Your task to perform on an android device: clear history in the chrome app Image 0: 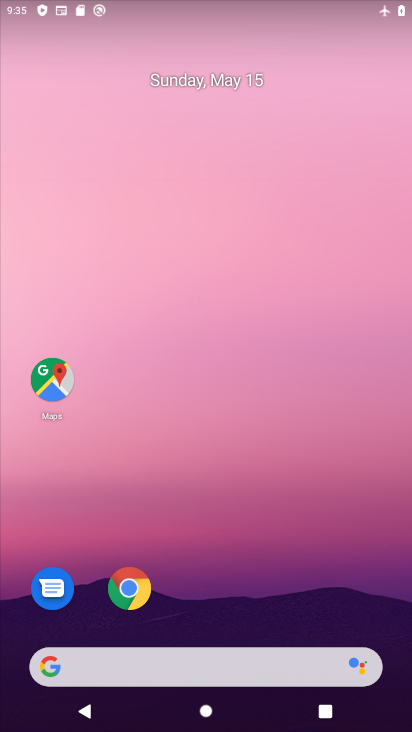
Step 0: click (130, 594)
Your task to perform on an android device: clear history in the chrome app Image 1: 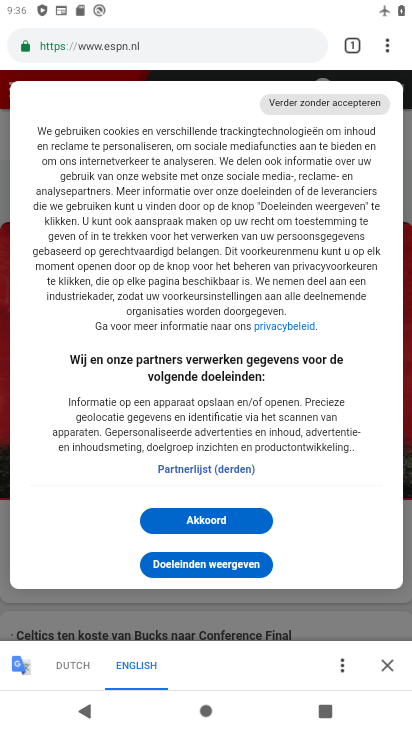
Step 1: click (384, 51)
Your task to perform on an android device: clear history in the chrome app Image 2: 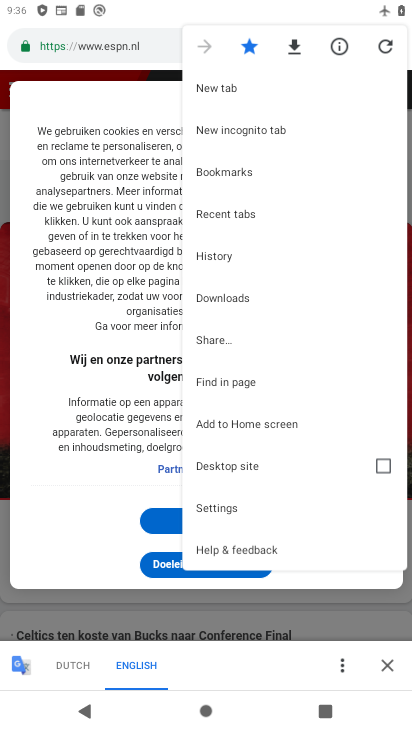
Step 2: click (384, 51)
Your task to perform on an android device: clear history in the chrome app Image 3: 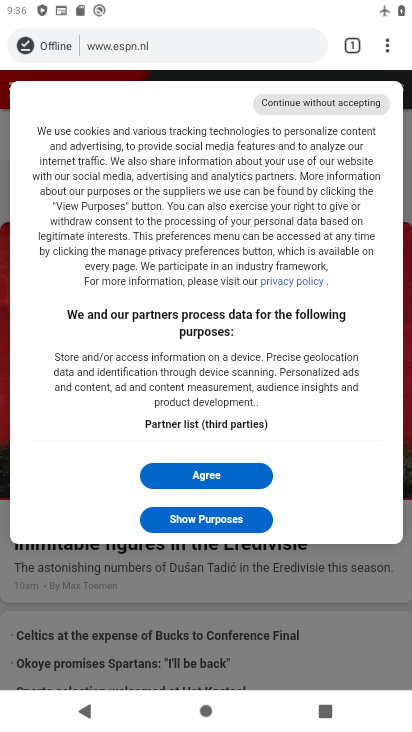
Step 3: click (380, 47)
Your task to perform on an android device: clear history in the chrome app Image 4: 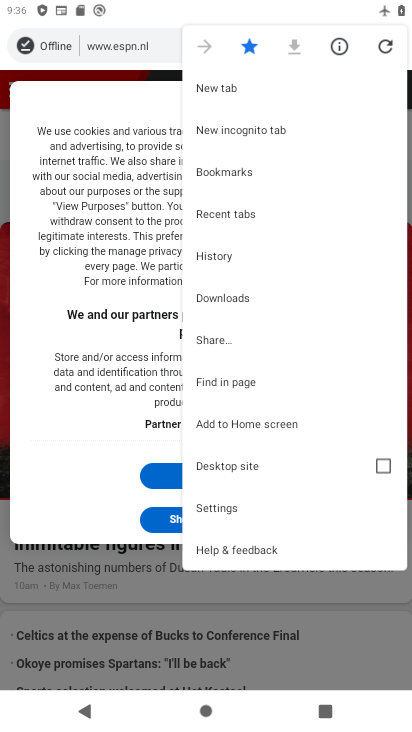
Step 4: click (229, 255)
Your task to perform on an android device: clear history in the chrome app Image 5: 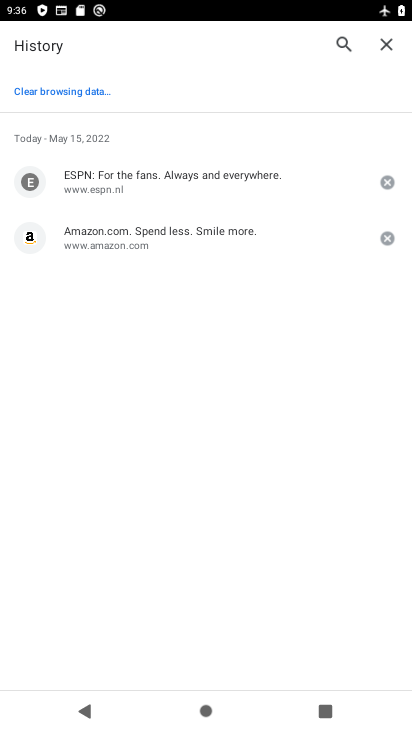
Step 5: click (65, 91)
Your task to perform on an android device: clear history in the chrome app Image 6: 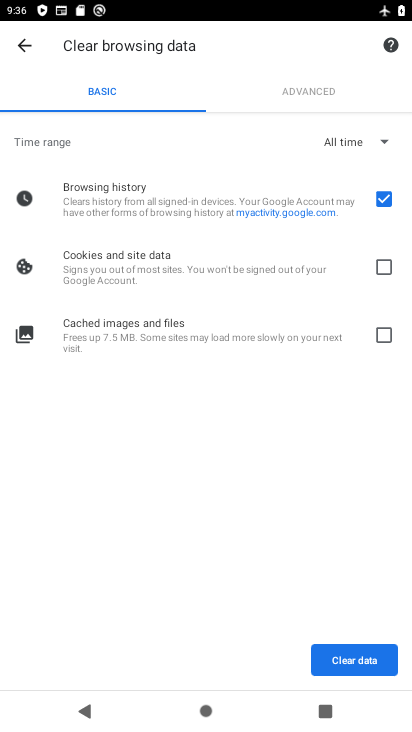
Step 6: click (375, 655)
Your task to perform on an android device: clear history in the chrome app Image 7: 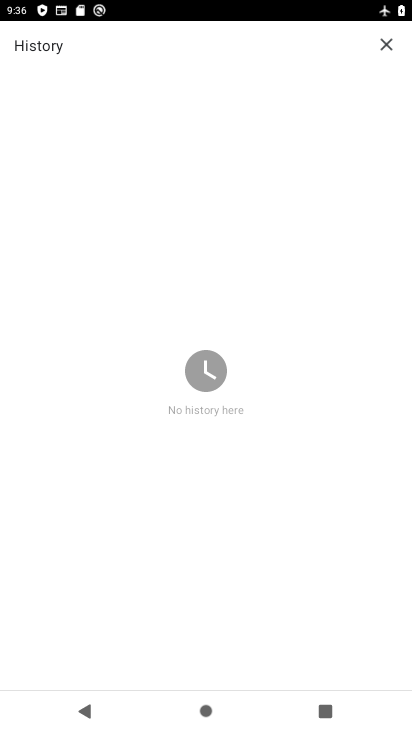
Step 7: task complete